Your task to perform on an android device: change notifications settings Image 0: 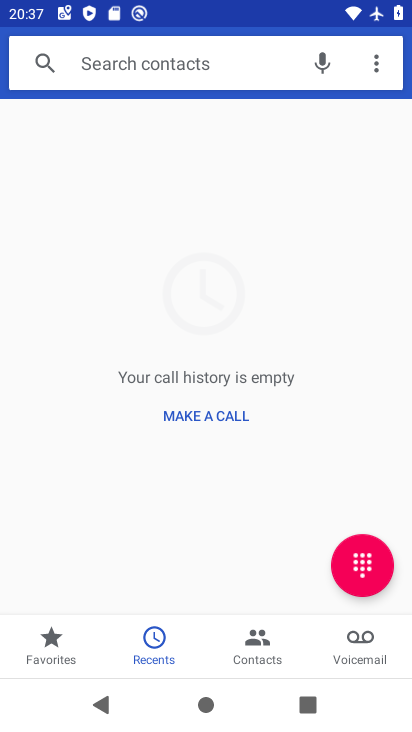
Step 0: press home button
Your task to perform on an android device: change notifications settings Image 1: 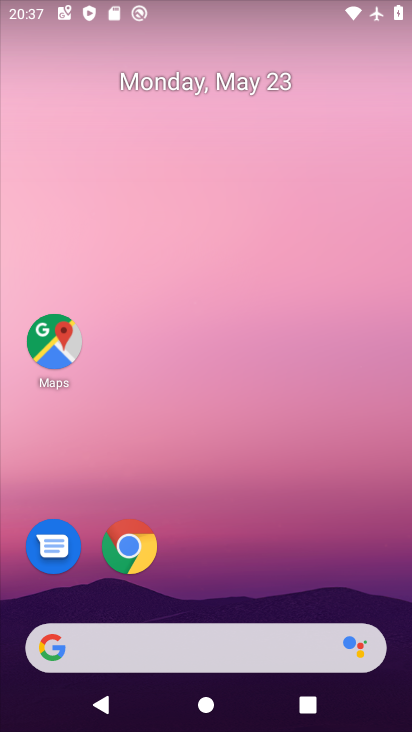
Step 1: drag from (386, 597) to (362, 198)
Your task to perform on an android device: change notifications settings Image 2: 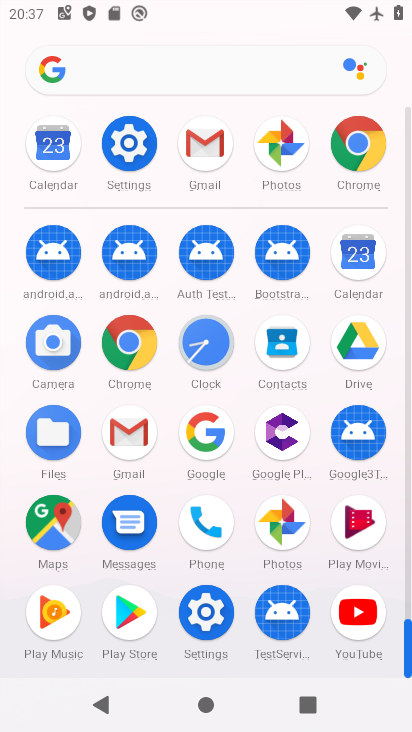
Step 2: click (207, 626)
Your task to perform on an android device: change notifications settings Image 3: 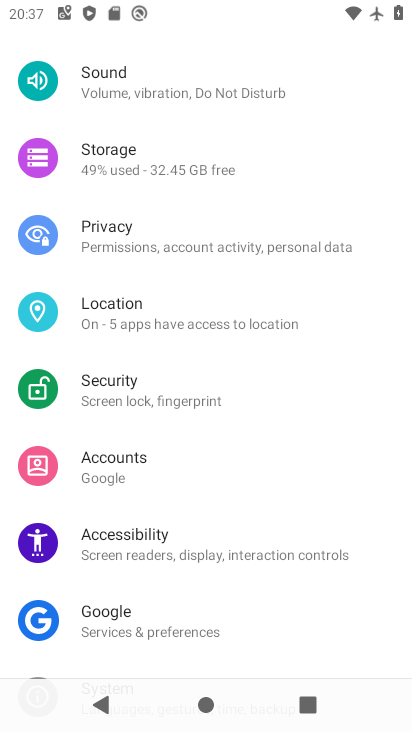
Step 3: drag from (319, 580) to (326, 424)
Your task to perform on an android device: change notifications settings Image 4: 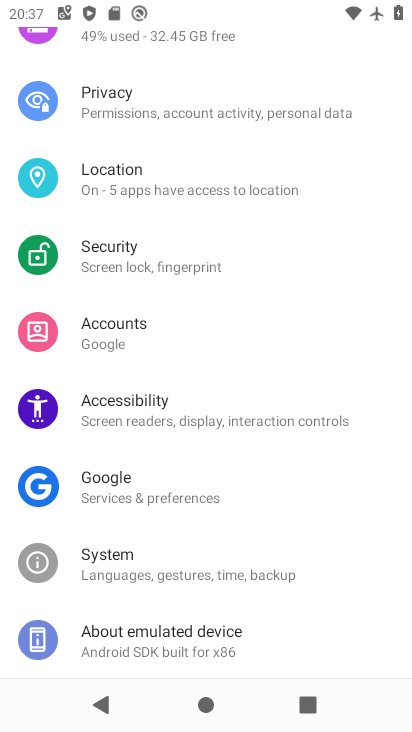
Step 4: drag from (331, 578) to (322, 474)
Your task to perform on an android device: change notifications settings Image 5: 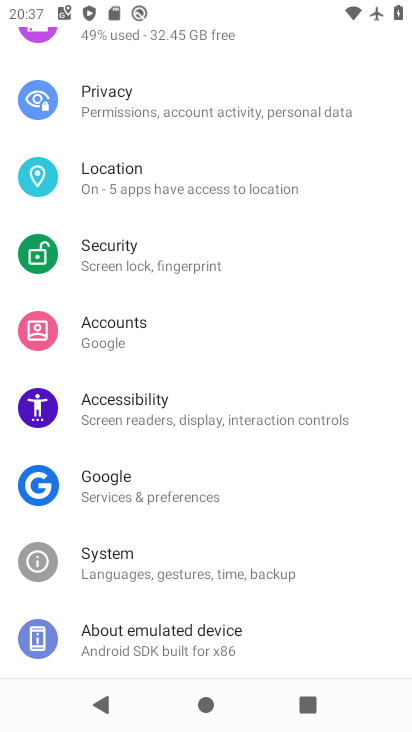
Step 5: drag from (350, 311) to (353, 452)
Your task to perform on an android device: change notifications settings Image 6: 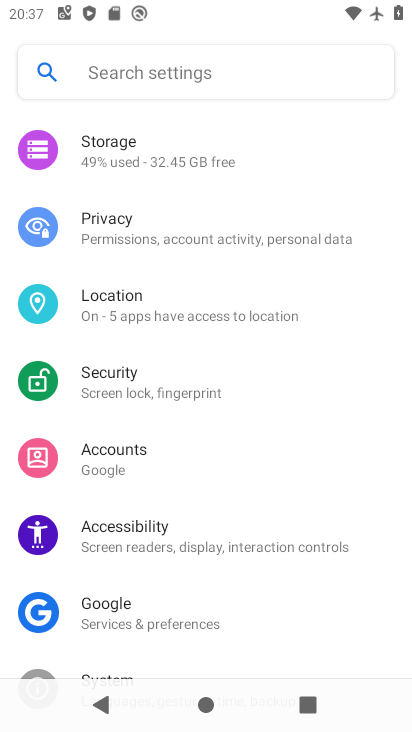
Step 6: drag from (374, 192) to (351, 342)
Your task to perform on an android device: change notifications settings Image 7: 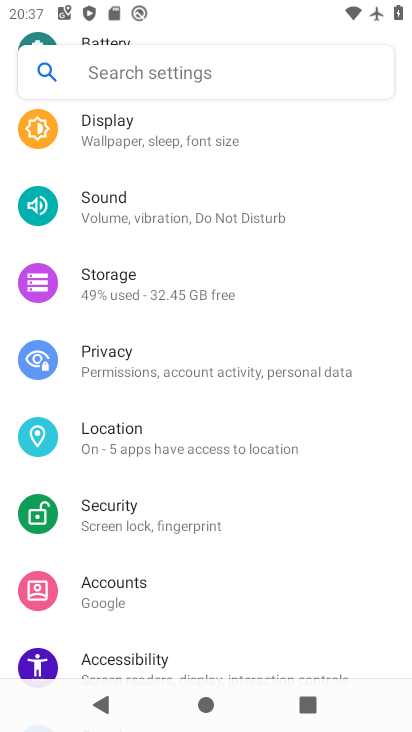
Step 7: drag from (338, 174) to (336, 377)
Your task to perform on an android device: change notifications settings Image 8: 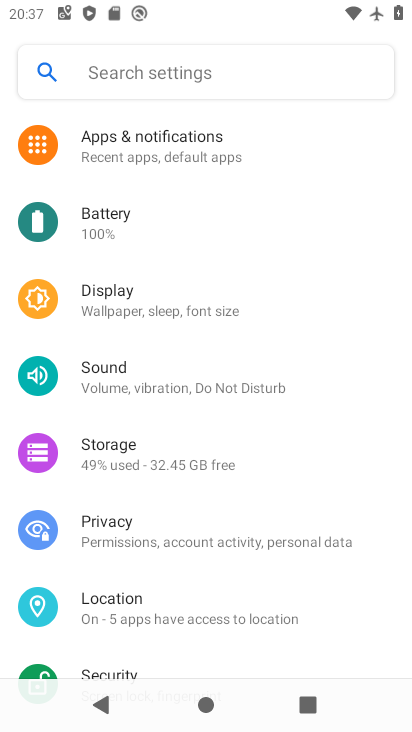
Step 8: drag from (339, 184) to (339, 388)
Your task to perform on an android device: change notifications settings Image 9: 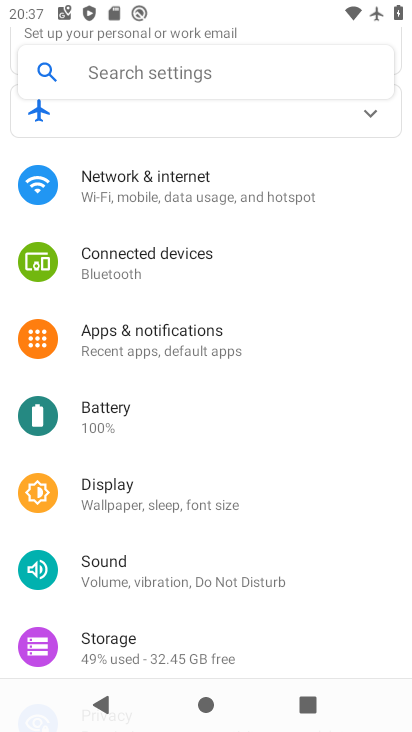
Step 9: click (190, 350)
Your task to perform on an android device: change notifications settings Image 10: 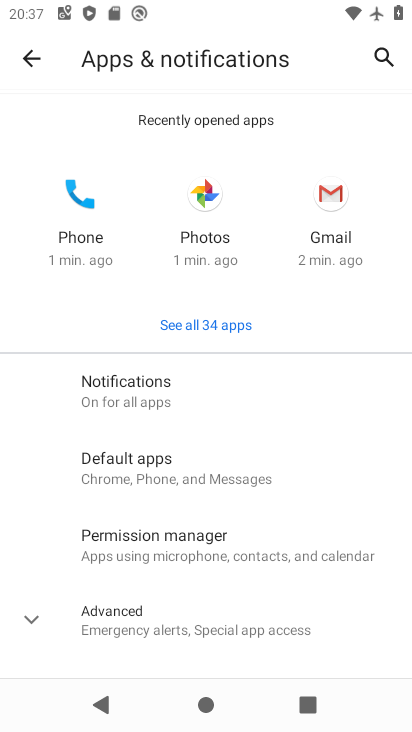
Step 10: click (159, 389)
Your task to perform on an android device: change notifications settings Image 11: 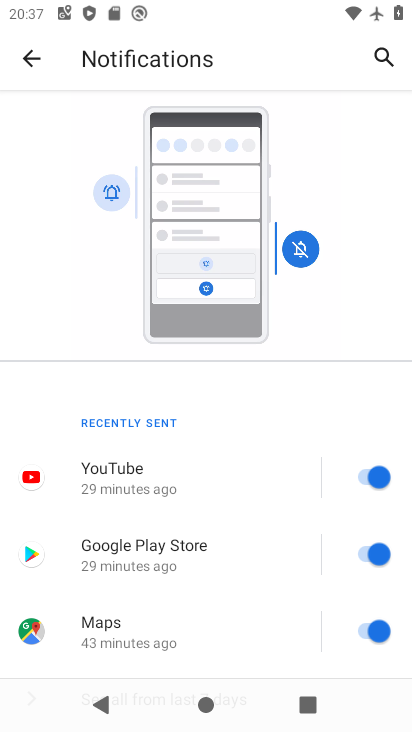
Step 11: drag from (261, 573) to (253, 448)
Your task to perform on an android device: change notifications settings Image 12: 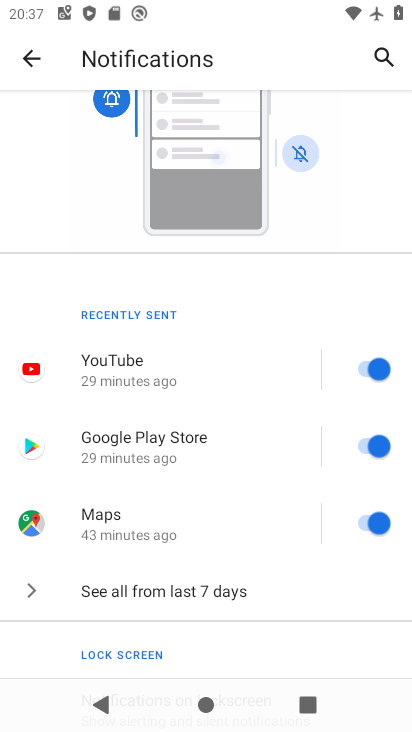
Step 12: click (368, 520)
Your task to perform on an android device: change notifications settings Image 13: 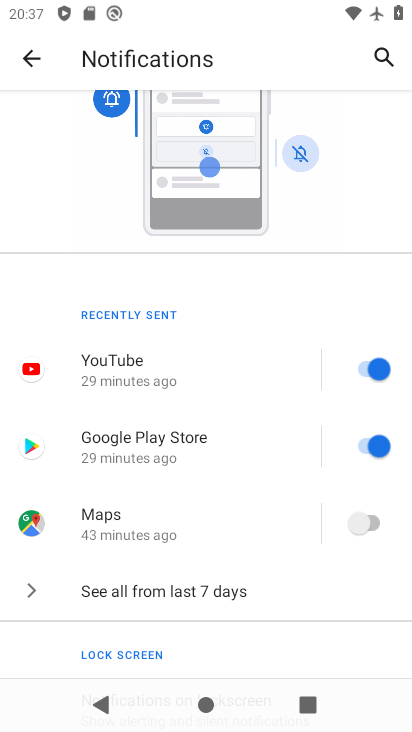
Step 13: click (377, 448)
Your task to perform on an android device: change notifications settings Image 14: 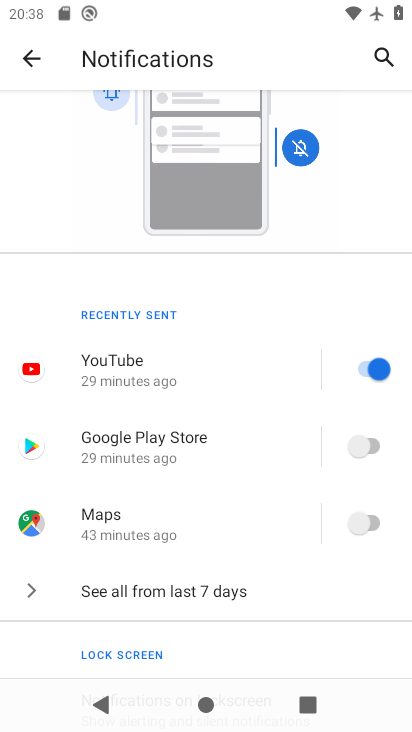
Step 14: click (388, 374)
Your task to perform on an android device: change notifications settings Image 15: 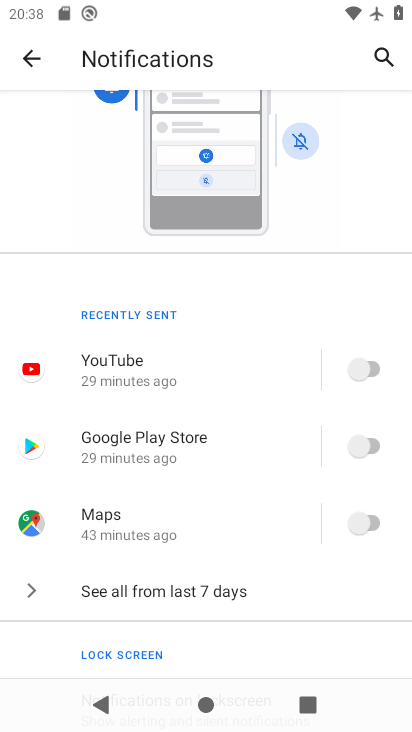
Step 15: task complete